Your task to perform on an android device: check out phone information Image 0: 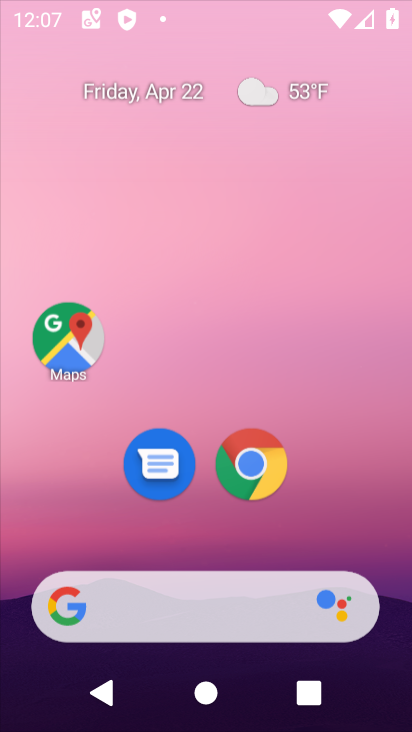
Step 0: click (251, 54)
Your task to perform on an android device: check out phone information Image 1: 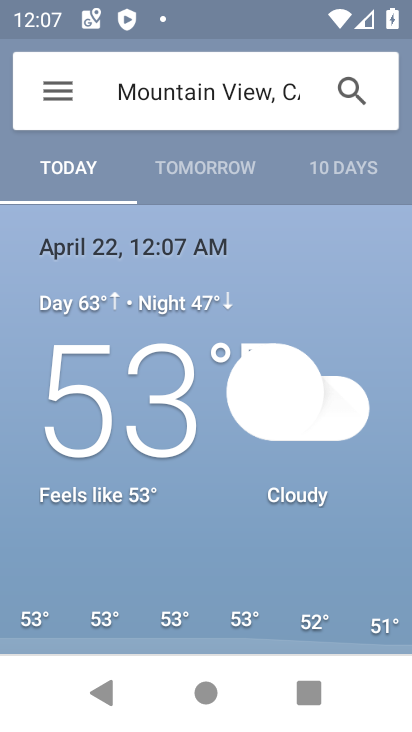
Step 1: press back button
Your task to perform on an android device: check out phone information Image 2: 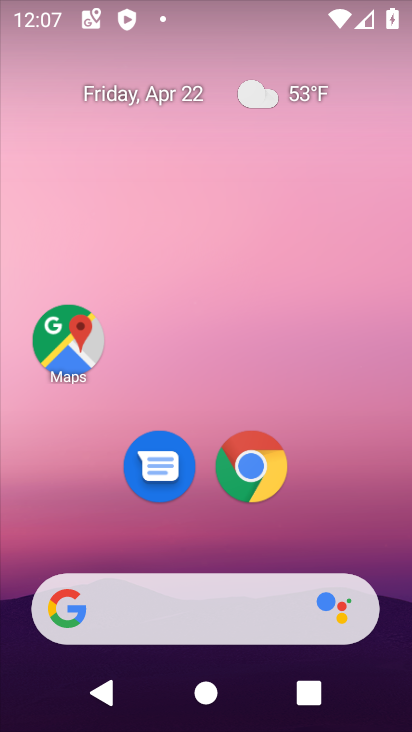
Step 2: drag from (332, 504) to (258, 12)
Your task to perform on an android device: check out phone information Image 3: 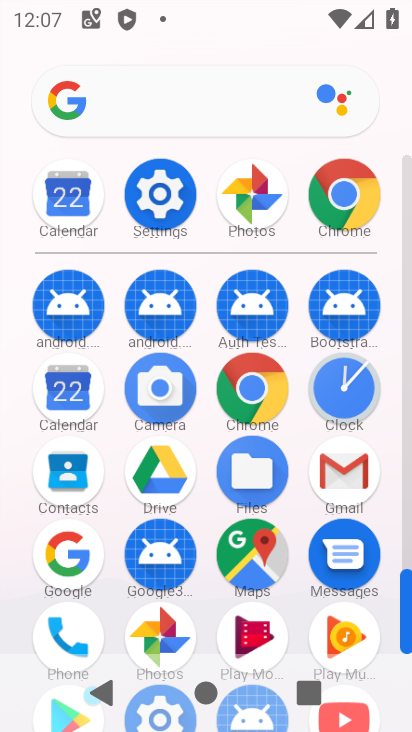
Step 3: click (161, 193)
Your task to perform on an android device: check out phone information Image 4: 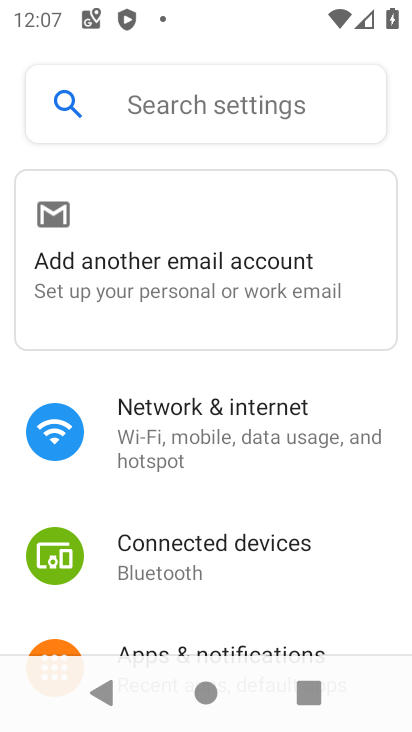
Step 4: drag from (279, 506) to (284, 193)
Your task to perform on an android device: check out phone information Image 5: 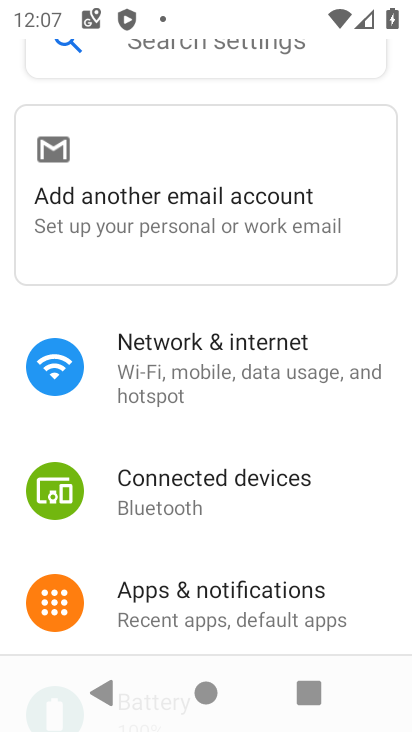
Step 5: drag from (315, 492) to (320, 188)
Your task to perform on an android device: check out phone information Image 6: 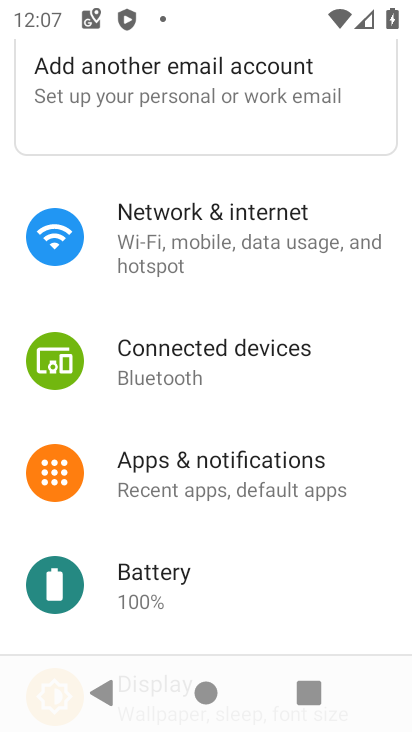
Step 6: drag from (325, 448) to (341, 166)
Your task to perform on an android device: check out phone information Image 7: 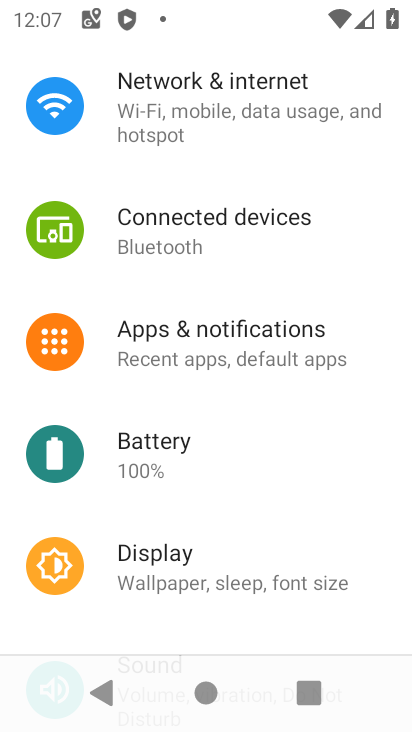
Step 7: drag from (283, 357) to (284, 172)
Your task to perform on an android device: check out phone information Image 8: 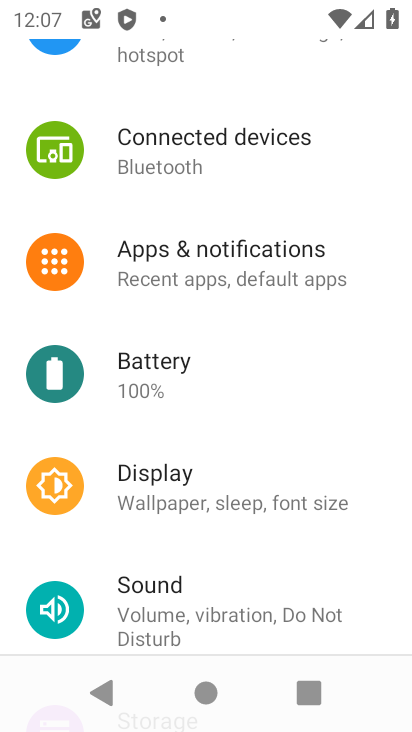
Step 8: drag from (267, 533) to (271, 176)
Your task to perform on an android device: check out phone information Image 9: 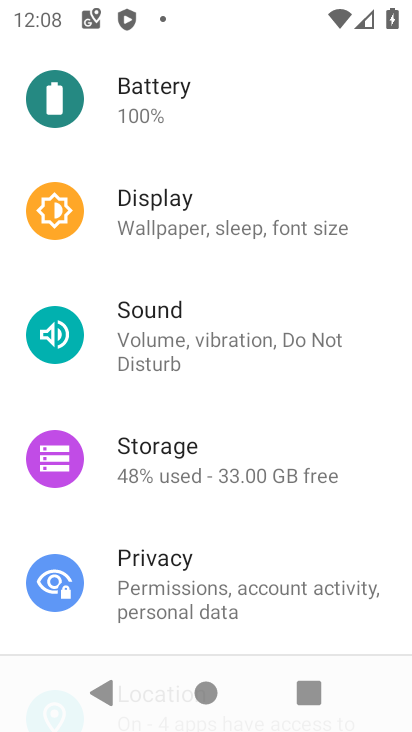
Step 9: drag from (343, 525) to (329, 161)
Your task to perform on an android device: check out phone information Image 10: 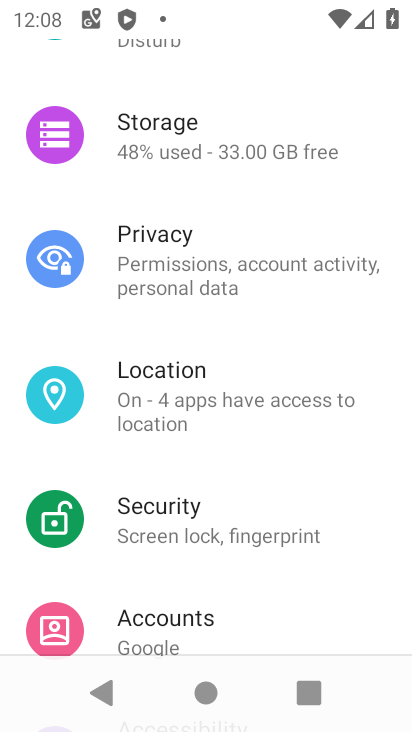
Step 10: drag from (260, 496) to (267, 148)
Your task to perform on an android device: check out phone information Image 11: 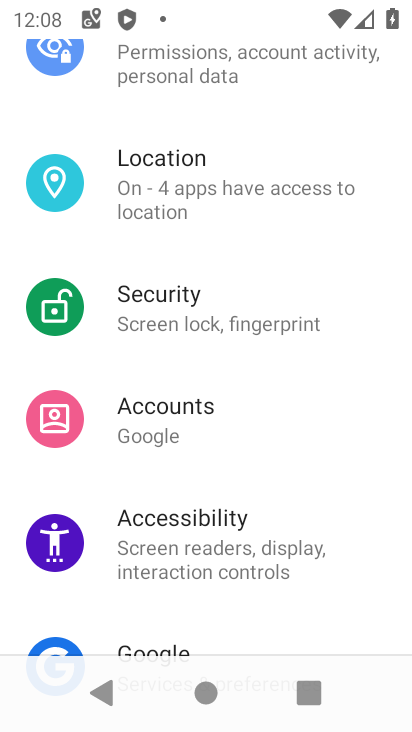
Step 11: drag from (262, 435) to (263, 159)
Your task to perform on an android device: check out phone information Image 12: 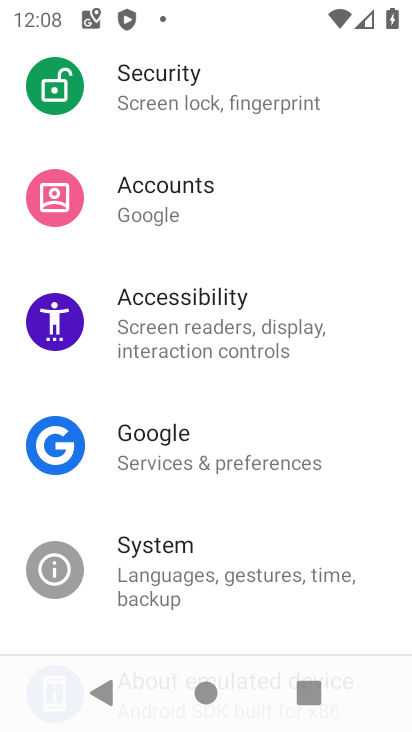
Step 12: drag from (258, 380) to (276, 150)
Your task to perform on an android device: check out phone information Image 13: 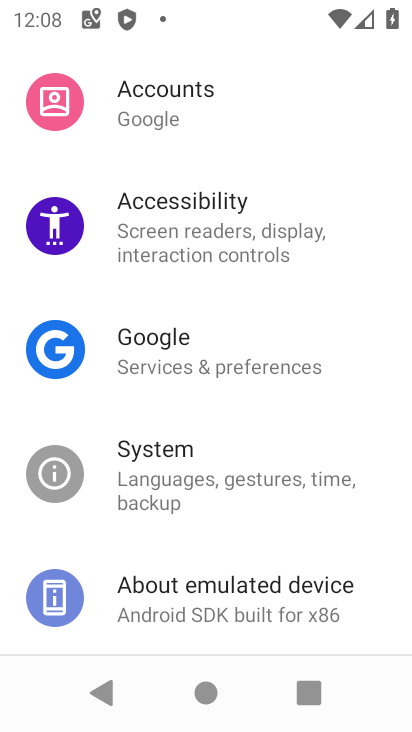
Step 13: drag from (260, 459) to (289, 188)
Your task to perform on an android device: check out phone information Image 14: 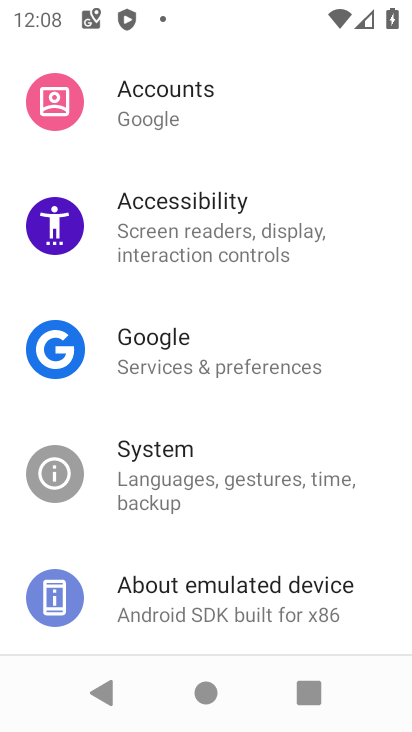
Step 14: click (190, 575)
Your task to perform on an android device: check out phone information Image 15: 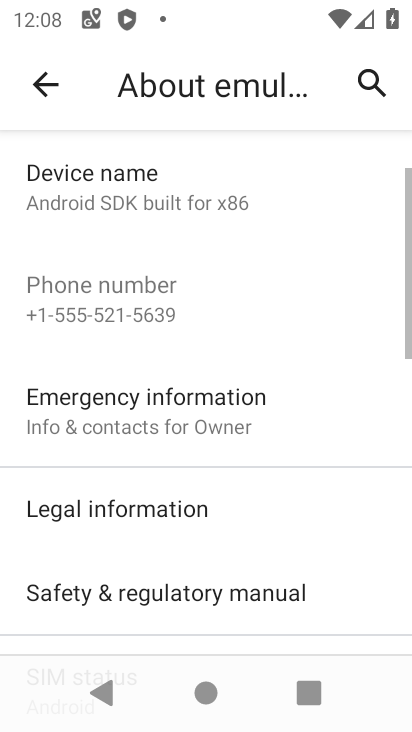
Step 15: drag from (282, 470) to (262, 132)
Your task to perform on an android device: check out phone information Image 16: 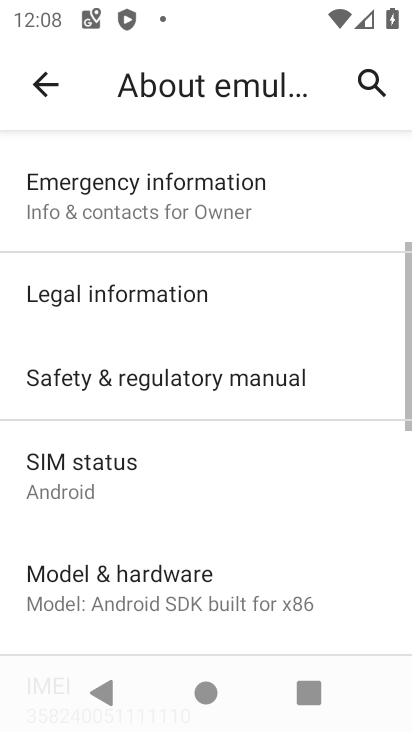
Step 16: drag from (245, 421) to (271, 166)
Your task to perform on an android device: check out phone information Image 17: 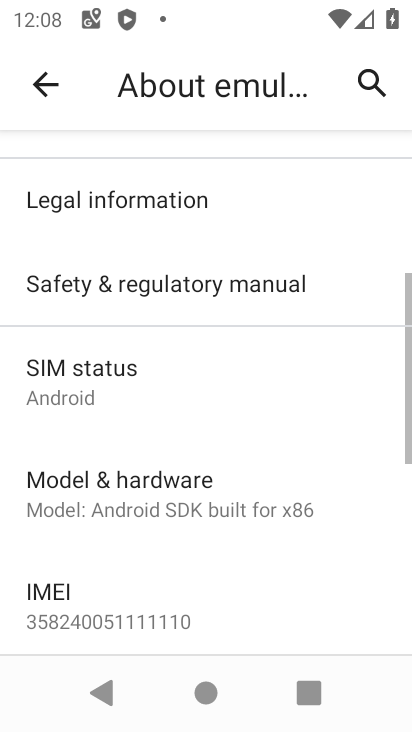
Step 17: drag from (272, 561) to (247, 181)
Your task to perform on an android device: check out phone information Image 18: 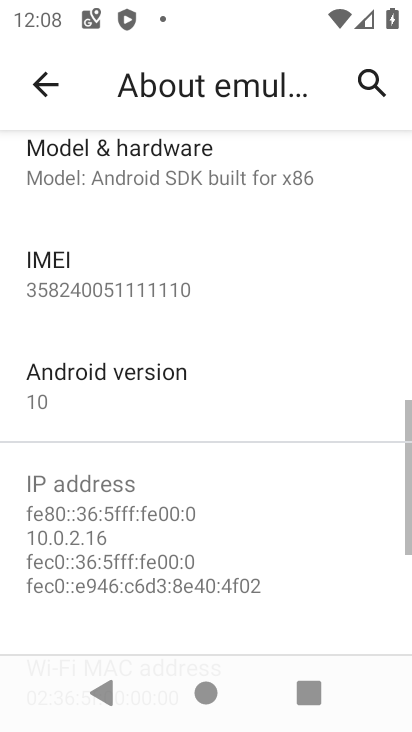
Step 18: drag from (268, 495) to (259, 191)
Your task to perform on an android device: check out phone information Image 19: 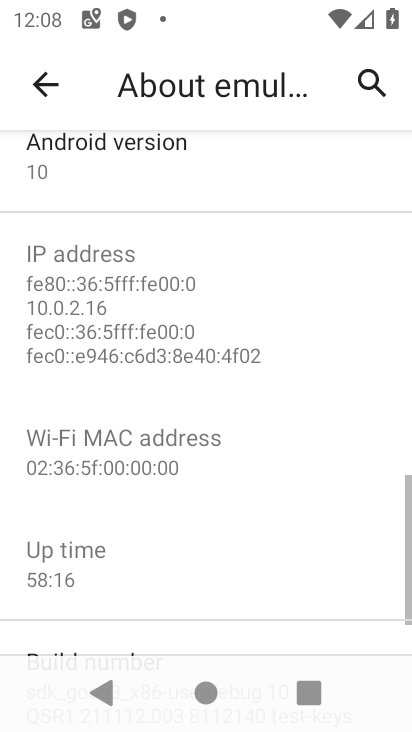
Step 19: drag from (205, 476) to (204, 198)
Your task to perform on an android device: check out phone information Image 20: 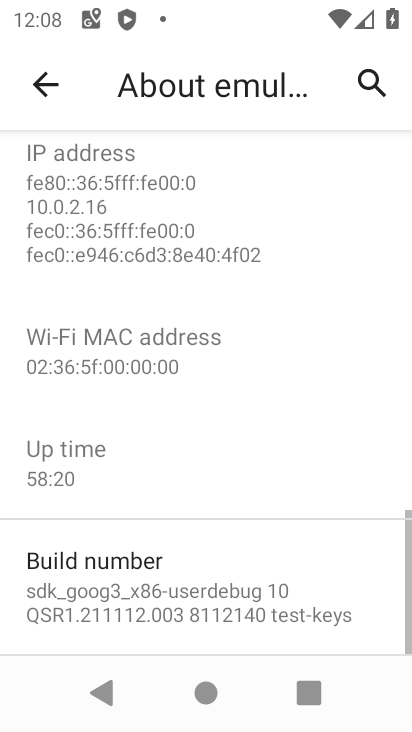
Step 20: drag from (272, 496) to (271, 176)
Your task to perform on an android device: check out phone information Image 21: 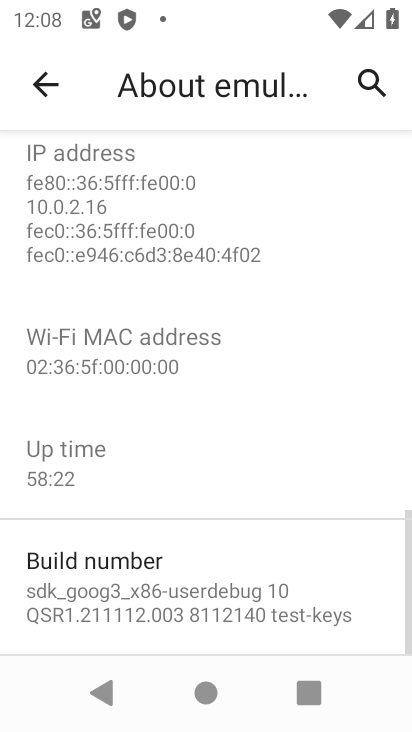
Step 21: drag from (269, 216) to (246, 503)
Your task to perform on an android device: check out phone information Image 22: 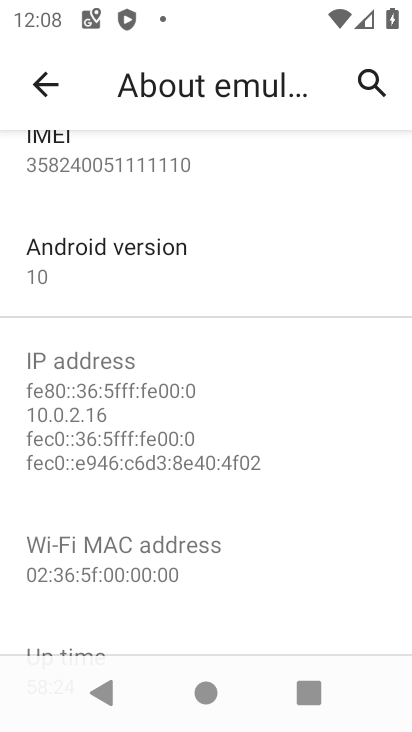
Step 22: drag from (266, 253) to (249, 491)
Your task to perform on an android device: check out phone information Image 23: 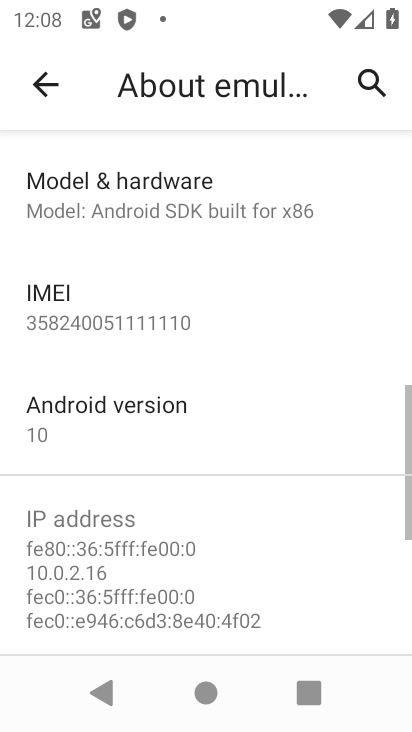
Step 23: drag from (283, 278) to (269, 527)
Your task to perform on an android device: check out phone information Image 24: 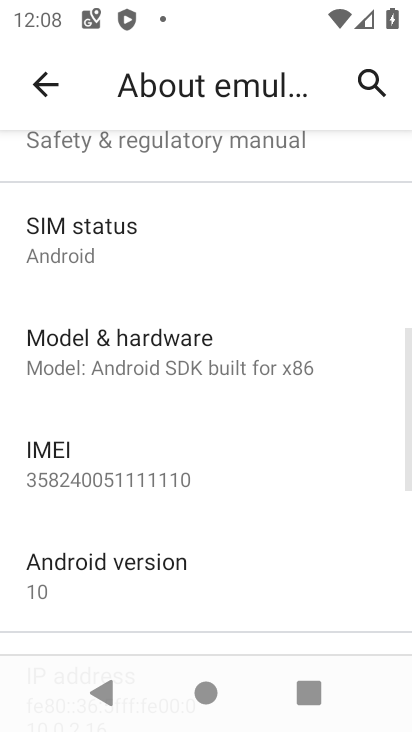
Step 24: drag from (302, 254) to (276, 484)
Your task to perform on an android device: check out phone information Image 25: 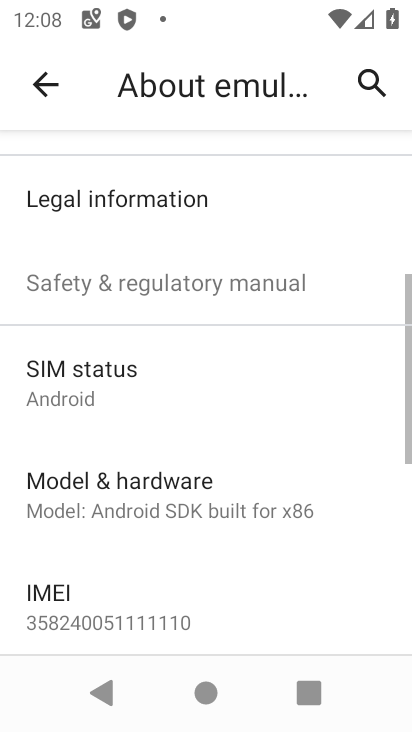
Step 25: drag from (249, 252) to (232, 513)
Your task to perform on an android device: check out phone information Image 26: 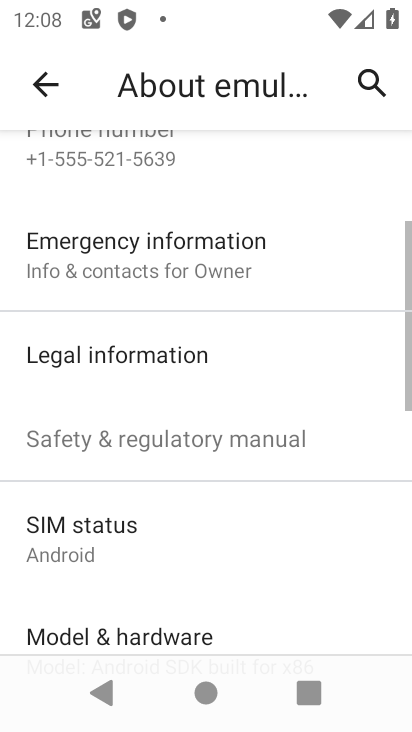
Step 26: drag from (246, 254) to (235, 535)
Your task to perform on an android device: check out phone information Image 27: 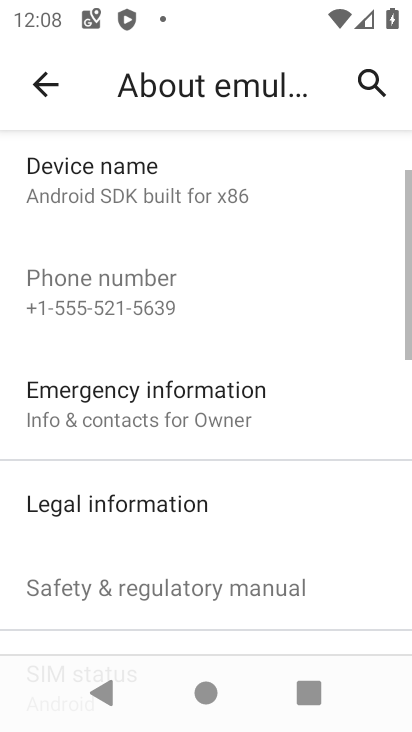
Step 27: drag from (270, 226) to (243, 525)
Your task to perform on an android device: check out phone information Image 28: 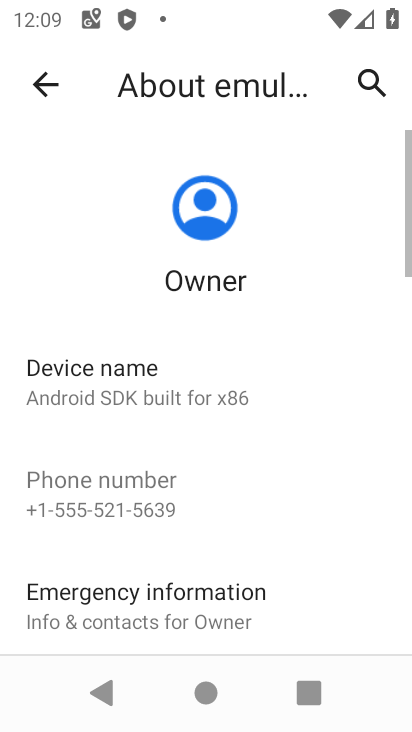
Step 28: click (40, 81)
Your task to perform on an android device: check out phone information Image 29: 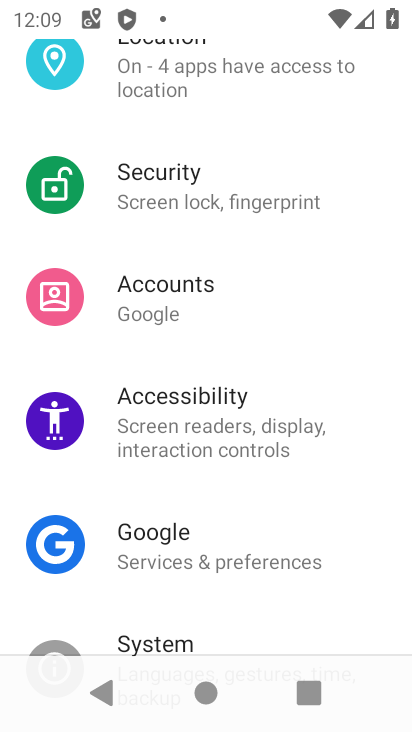
Step 29: drag from (296, 557) to (304, 235)
Your task to perform on an android device: check out phone information Image 30: 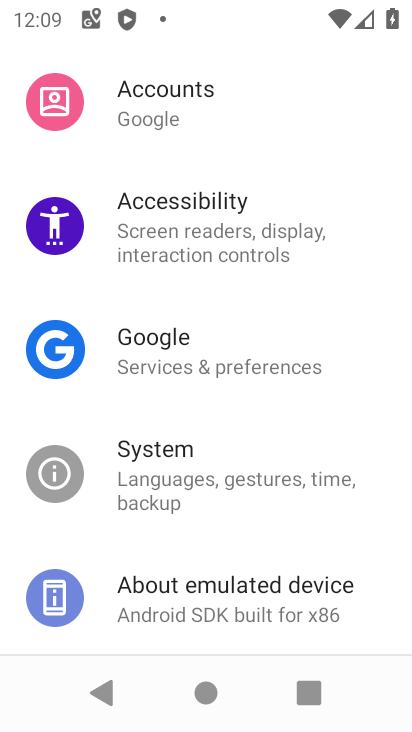
Step 30: click (184, 596)
Your task to perform on an android device: check out phone information Image 31: 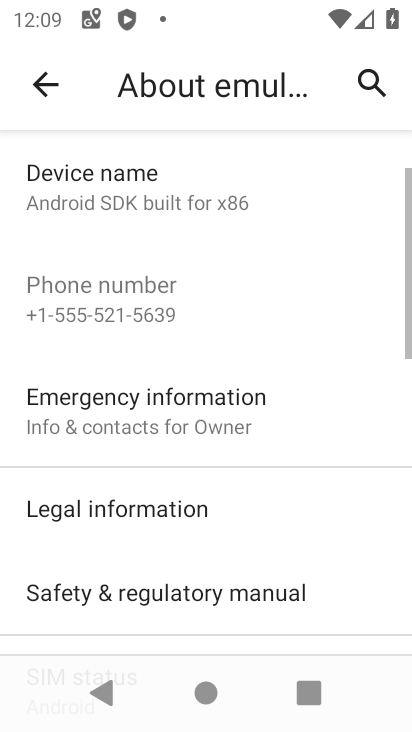
Step 31: task complete